Your task to perform on an android device: install app "File Manager" Image 0: 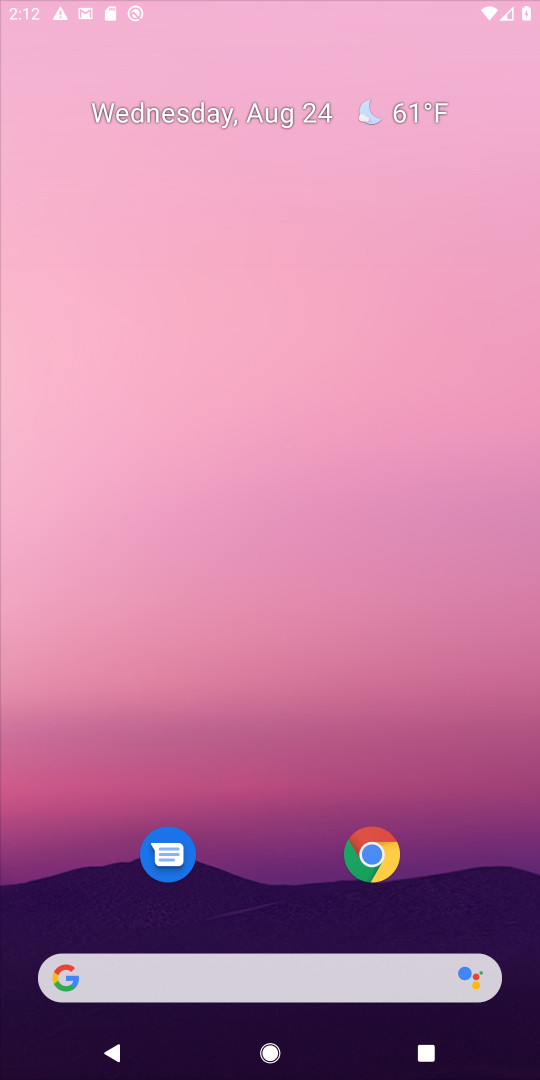
Step 0: press home button
Your task to perform on an android device: install app "File Manager" Image 1: 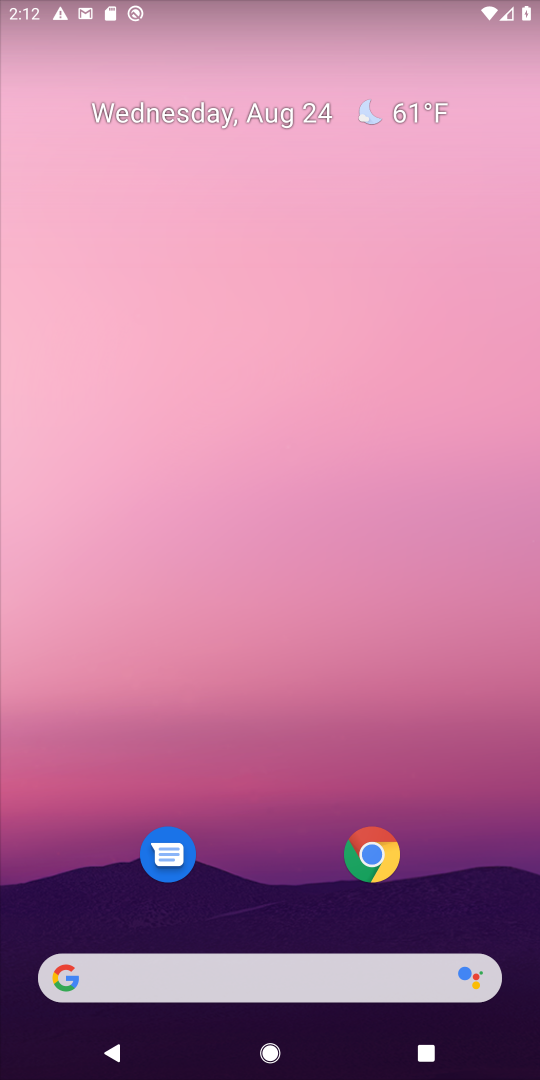
Step 1: drag from (437, 796) to (439, 54)
Your task to perform on an android device: install app "File Manager" Image 2: 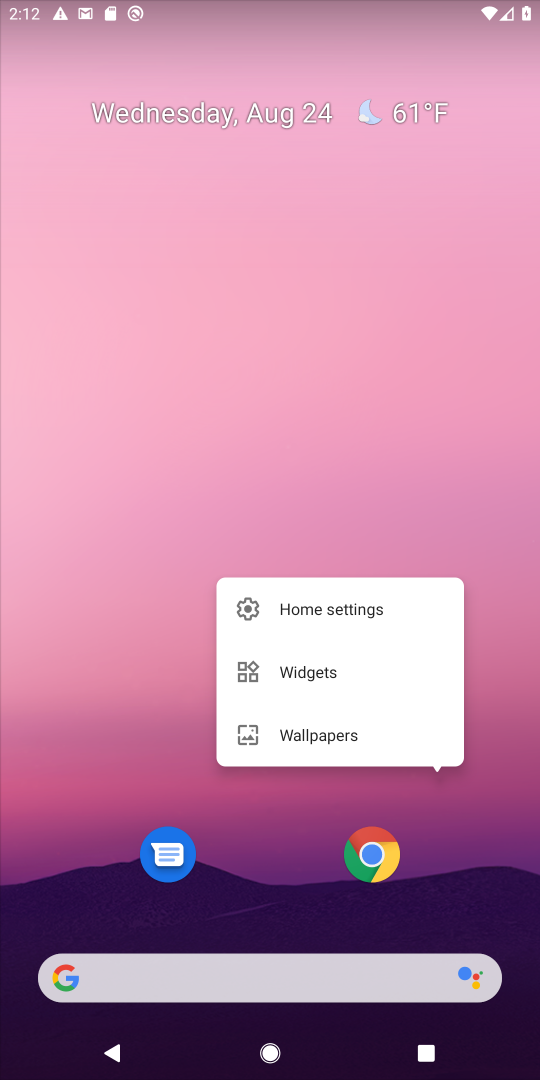
Step 2: click (484, 787)
Your task to perform on an android device: install app "File Manager" Image 3: 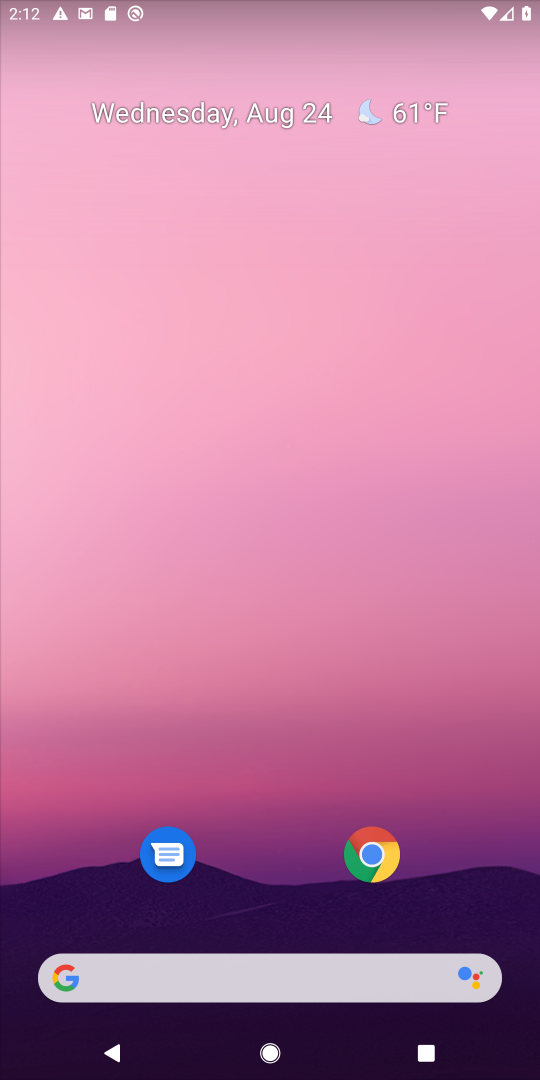
Step 3: drag from (487, 883) to (477, 66)
Your task to perform on an android device: install app "File Manager" Image 4: 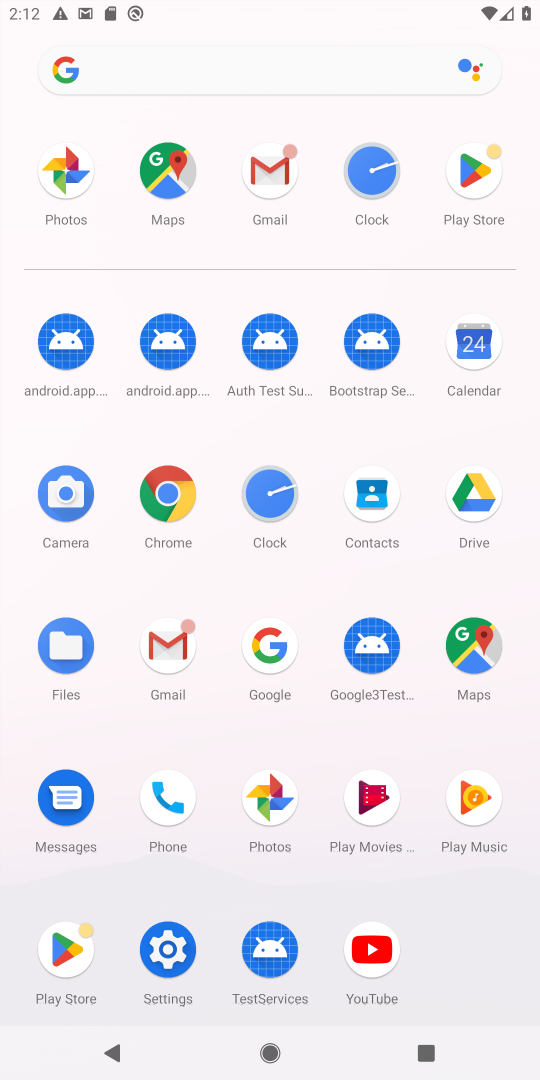
Step 4: click (485, 161)
Your task to perform on an android device: install app "File Manager" Image 5: 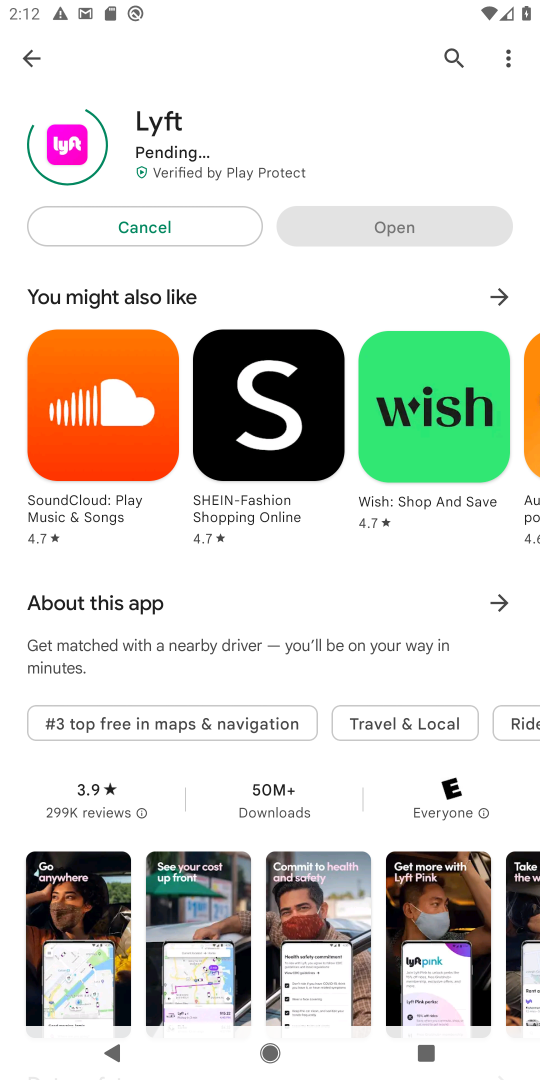
Step 5: press back button
Your task to perform on an android device: install app "File Manager" Image 6: 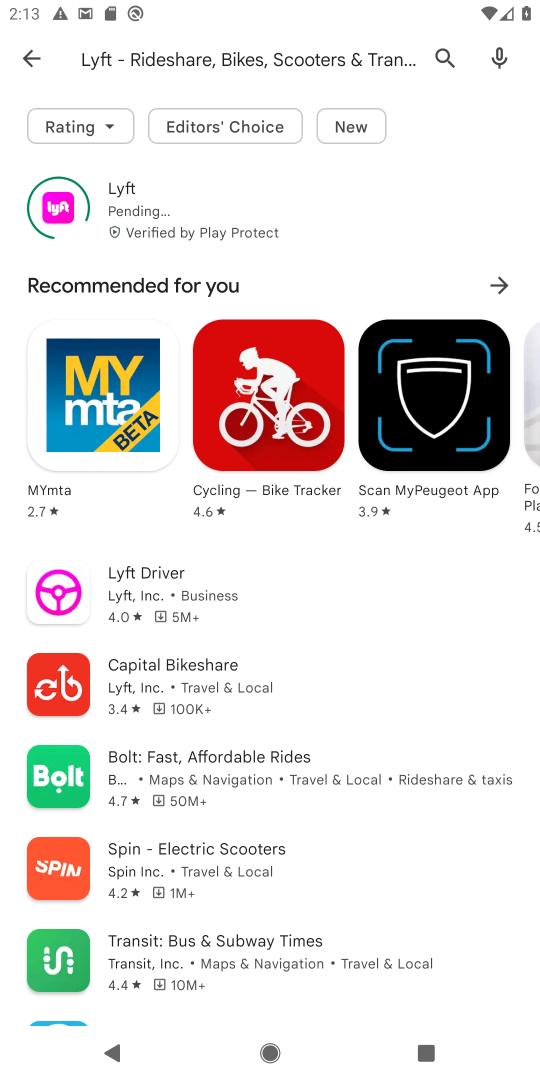
Step 6: press back button
Your task to perform on an android device: install app "File Manager" Image 7: 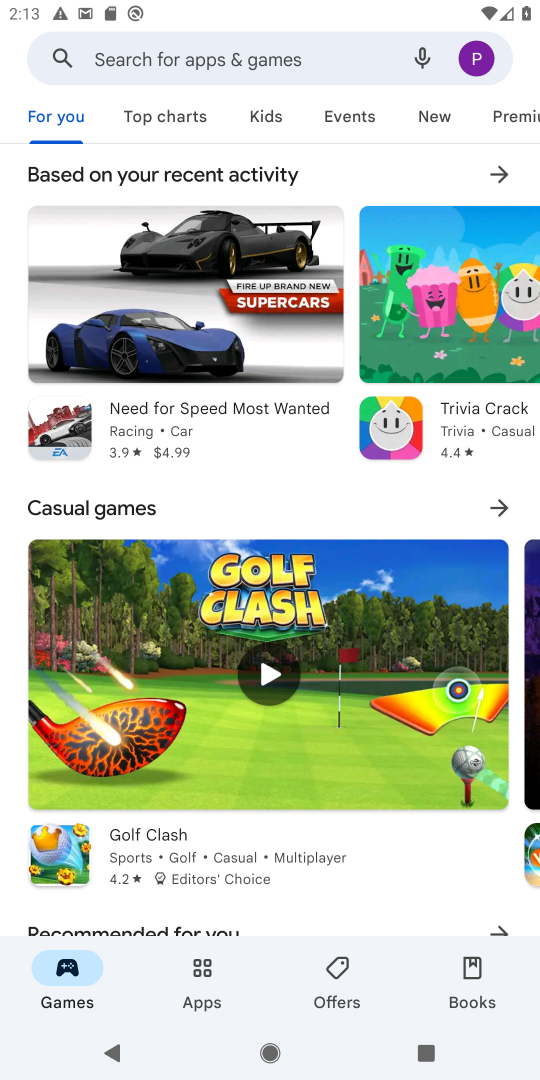
Step 7: click (301, 52)
Your task to perform on an android device: install app "File Manager" Image 8: 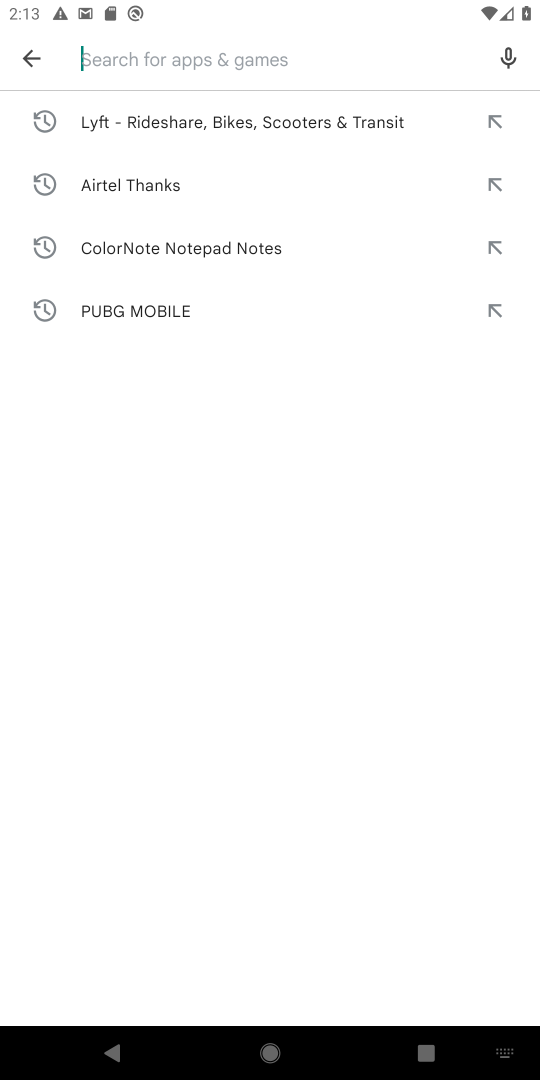
Step 8: type "File Manager"
Your task to perform on an android device: install app "File Manager" Image 9: 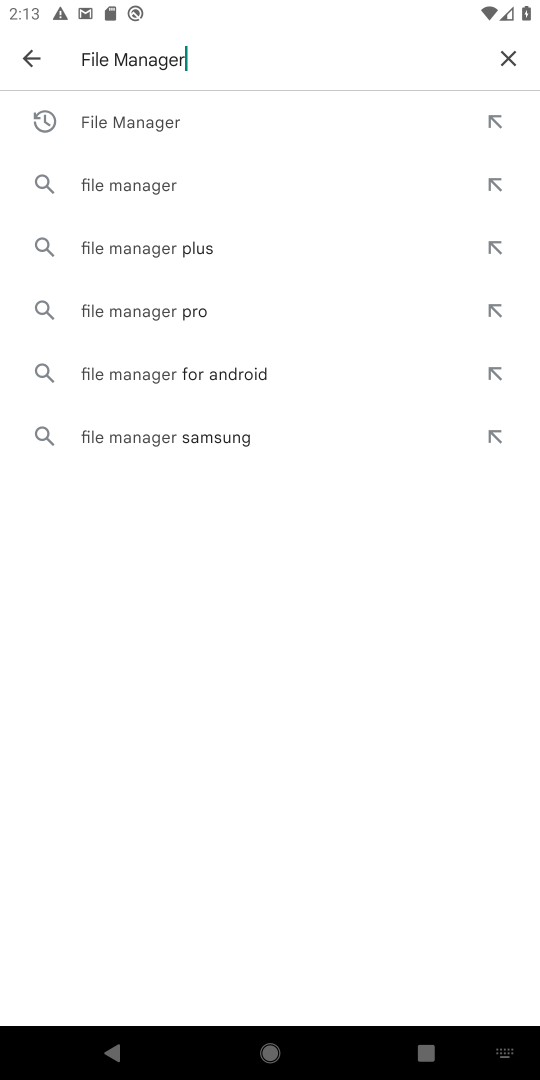
Step 9: press enter
Your task to perform on an android device: install app "File Manager" Image 10: 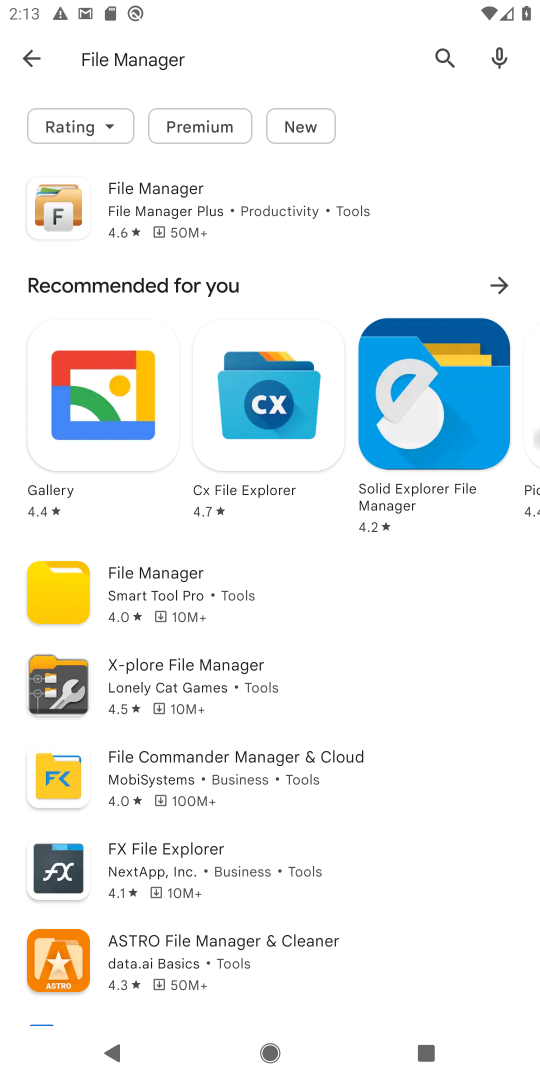
Step 10: task complete